Your task to perform on an android device: turn off wifi Image 0: 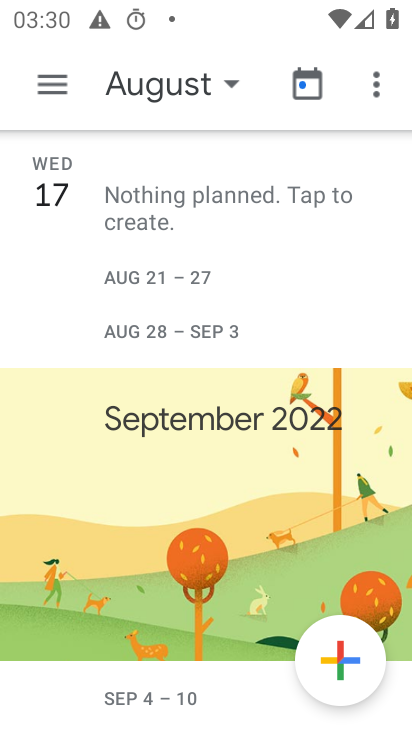
Step 0: press home button
Your task to perform on an android device: turn off wifi Image 1: 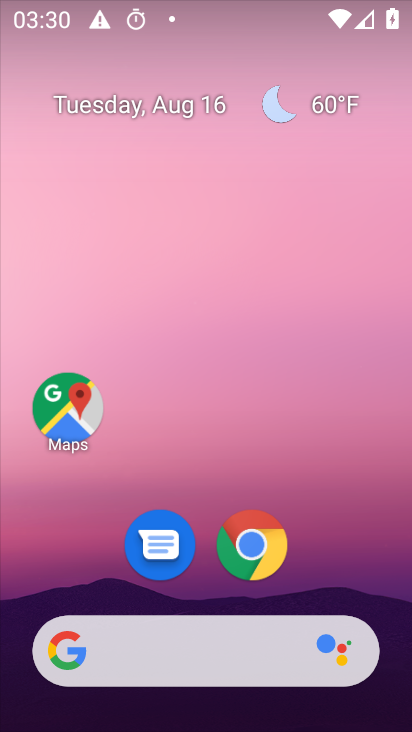
Step 1: drag from (200, 634) to (176, 262)
Your task to perform on an android device: turn off wifi Image 2: 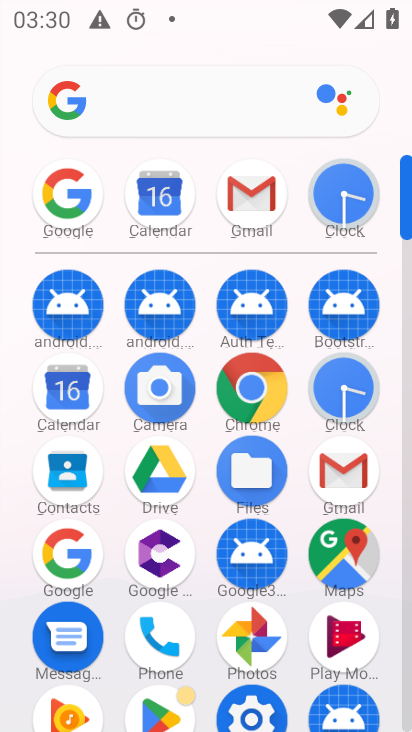
Step 2: click (256, 714)
Your task to perform on an android device: turn off wifi Image 3: 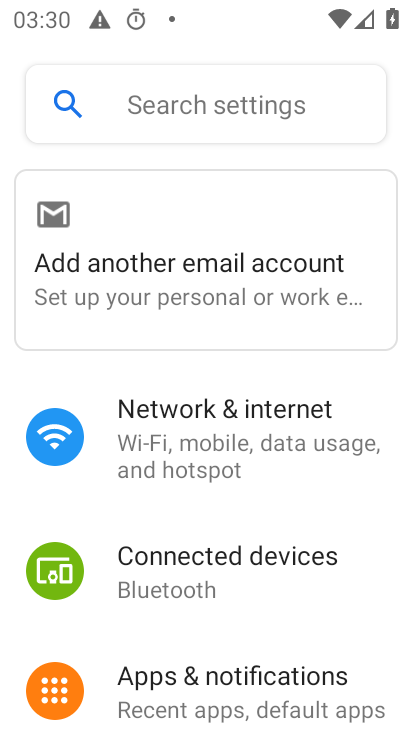
Step 3: click (176, 454)
Your task to perform on an android device: turn off wifi Image 4: 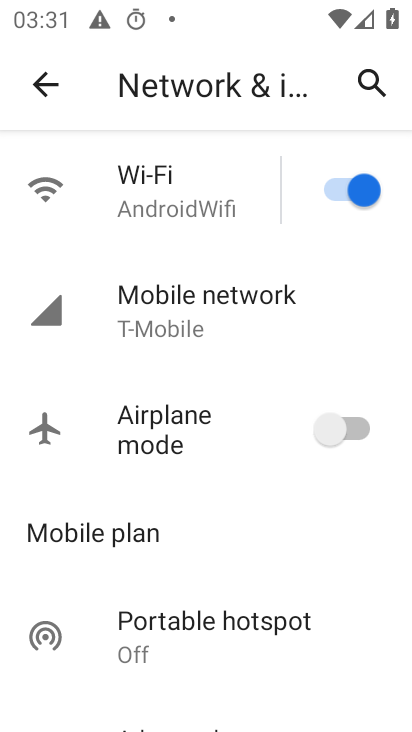
Step 4: click (327, 190)
Your task to perform on an android device: turn off wifi Image 5: 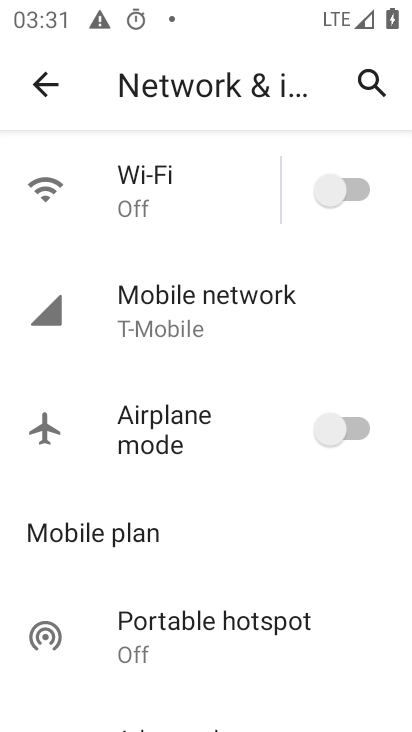
Step 5: task complete